Your task to perform on an android device: Is it going to rain this weekend? Image 0: 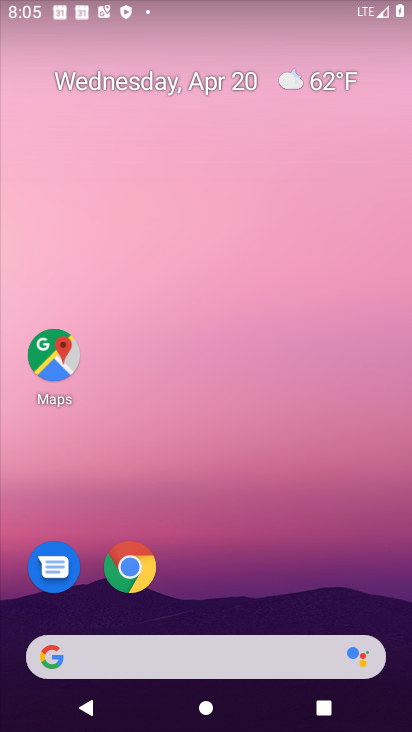
Step 0: drag from (290, 537) to (342, 91)
Your task to perform on an android device: Is it going to rain this weekend? Image 1: 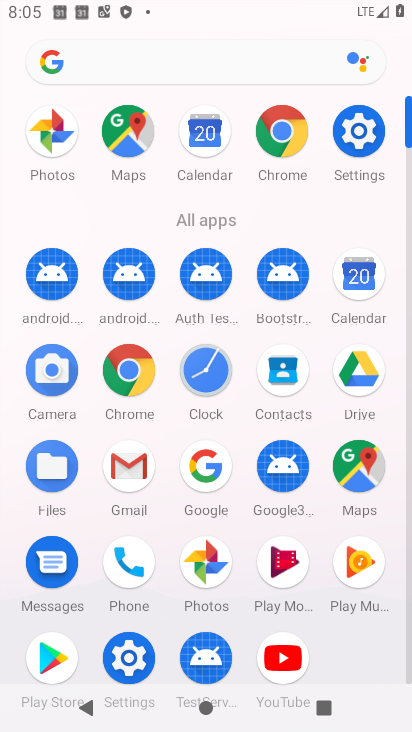
Step 1: click (86, 709)
Your task to perform on an android device: Is it going to rain this weekend? Image 2: 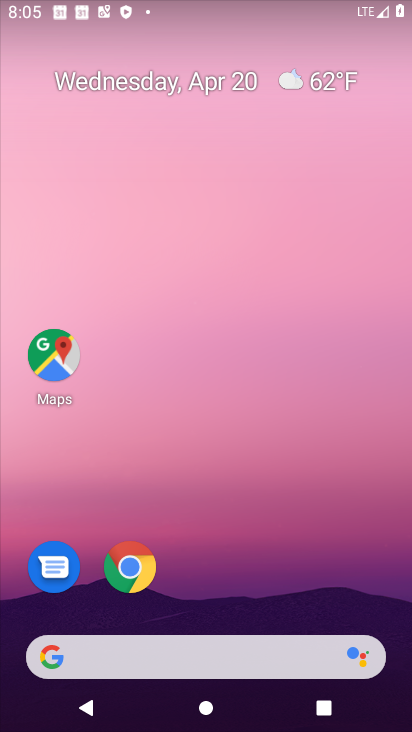
Step 2: drag from (6, 203) to (409, 244)
Your task to perform on an android device: Is it going to rain this weekend? Image 3: 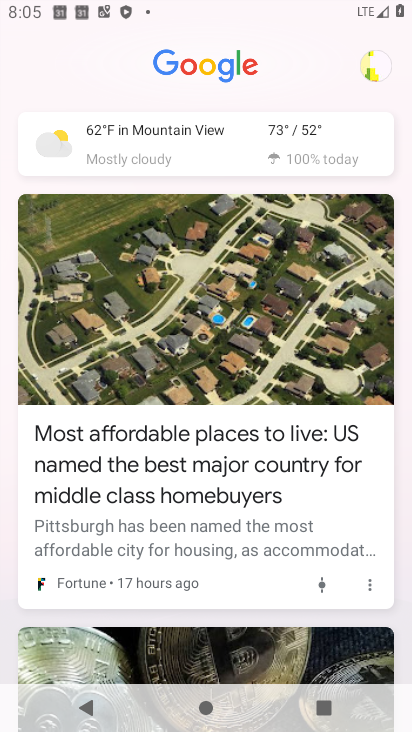
Step 3: click (243, 136)
Your task to perform on an android device: Is it going to rain this weekend? Image 4: 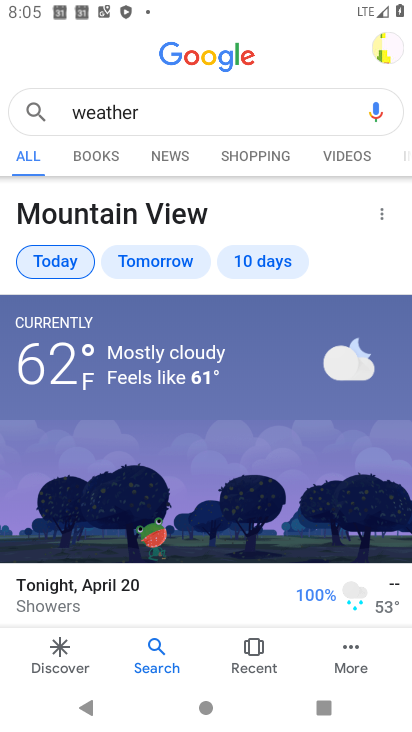
Step 4: task complete